Your task to perform on an android device: Go to notification settings Image 0: 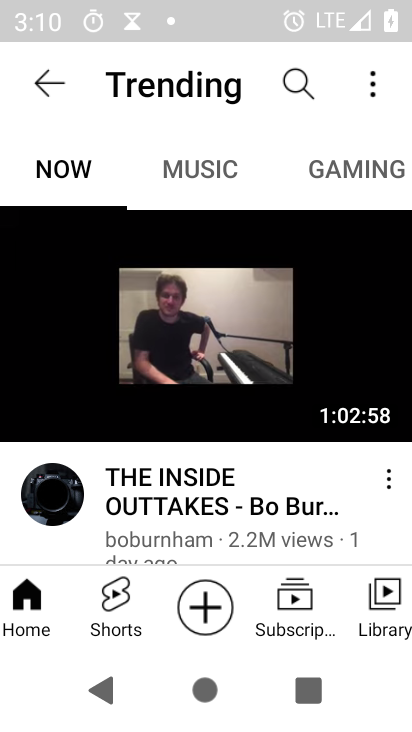
Step 0: press back button
Your task to perform on an android device: Go to notification settings Image 1: 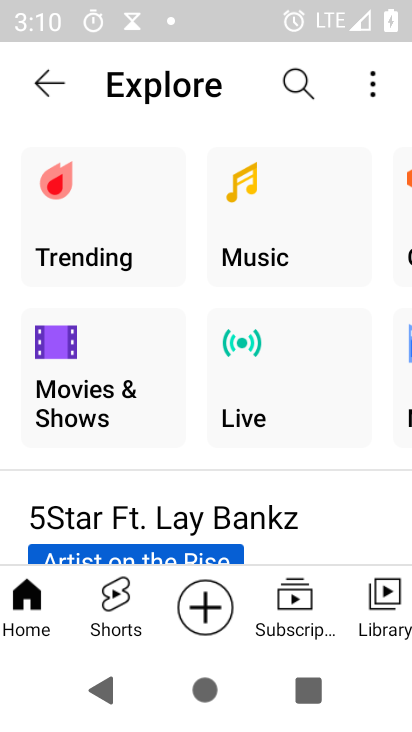
Step 1: press back button
Your task to perform on an android device: Go to notification settings Image 2: 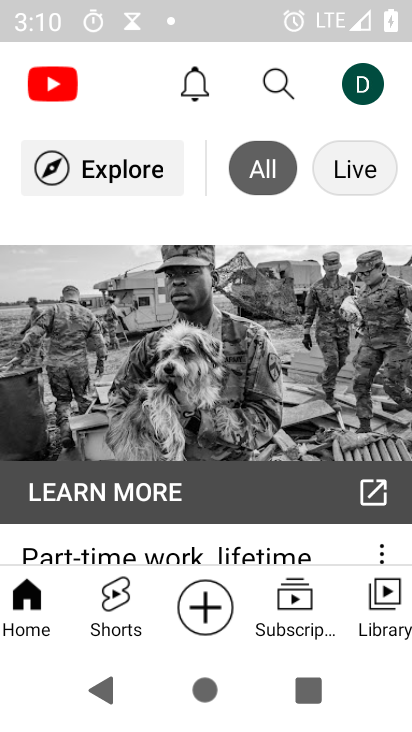
Step 2: press back button
Your task to perform on an android device: Go to notification settings Image 3: 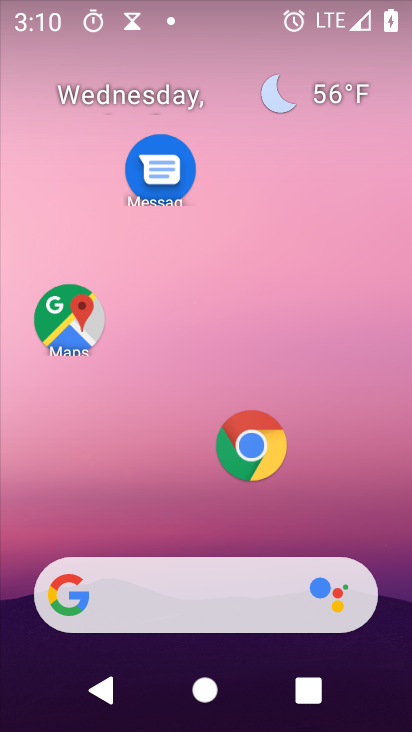
Step 3: drag from (8, 380) to (131, 85)
Your task to perform on an android device: Go to notification settings Image 4: 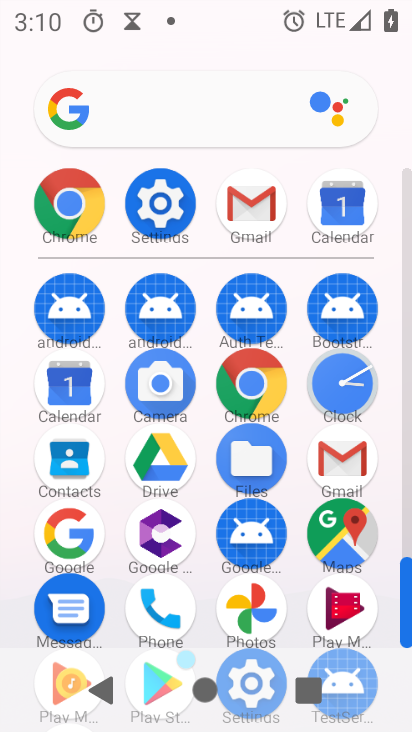
Step 4: click (150, 208)
Your task to perform on an android device: Go to notification settings Image 5: 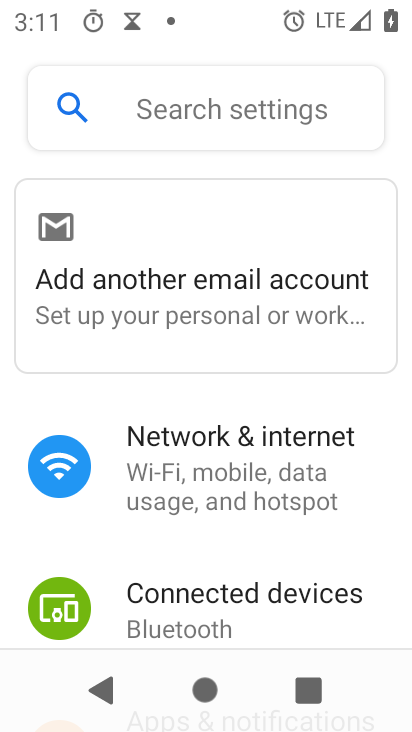
Step 5: drag from (15, 464) to (129, 184)
Your task to perform on an android device: Go to notification settings Image 6: 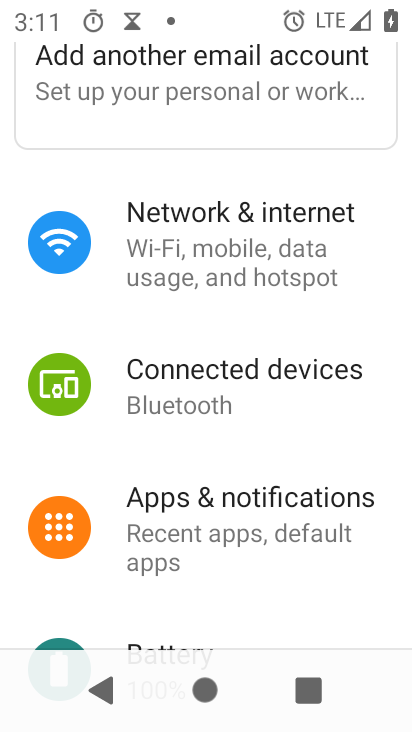
Step 6: click (296, 522)
Your task to perform on an android device: Go to notification settings Image 7: 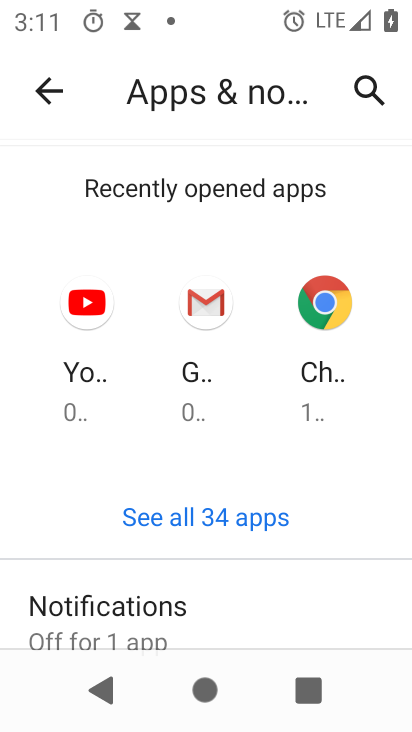
Step 7: drag from (3, 591) to (134, 161)
Your task to perform on an android device: Go to notification settings Image 8: 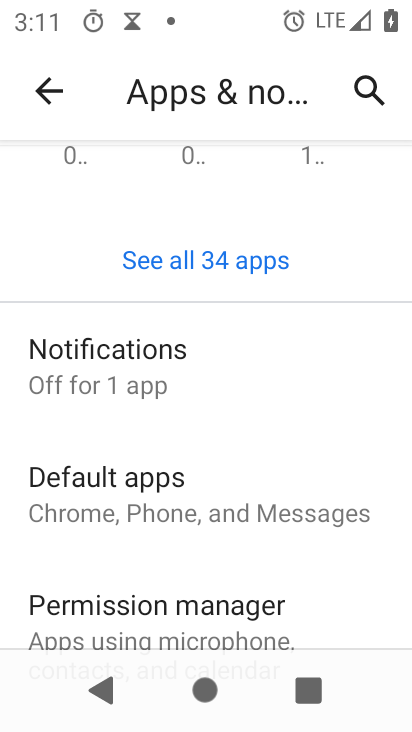
Step 8: drag from (13, 501) to (212, 194)
Your task to perform on an android device: Go to notification settings Image 9: 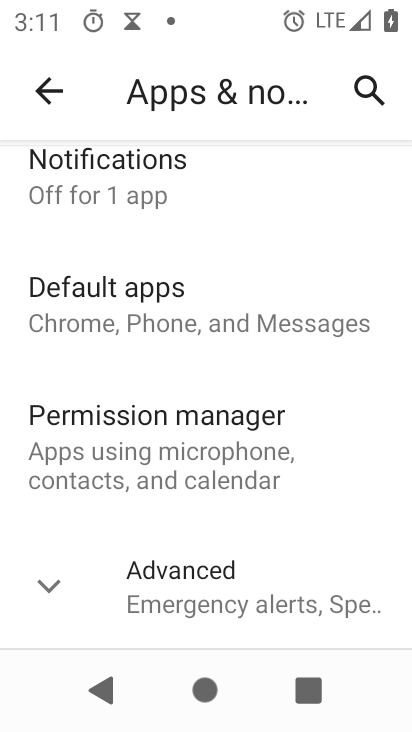
Step 9: click (88, 185)
Your task to perform on an android device: Go to notification settings Image 10: 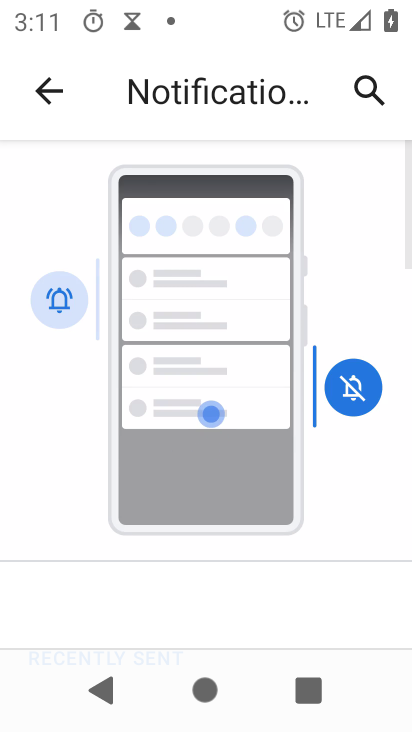
Step 10: task complete